Your task to perform on an android device: Clear the shopping cart on ebay. Add macbook pro 15 inch to the cart on ebay Image 0: 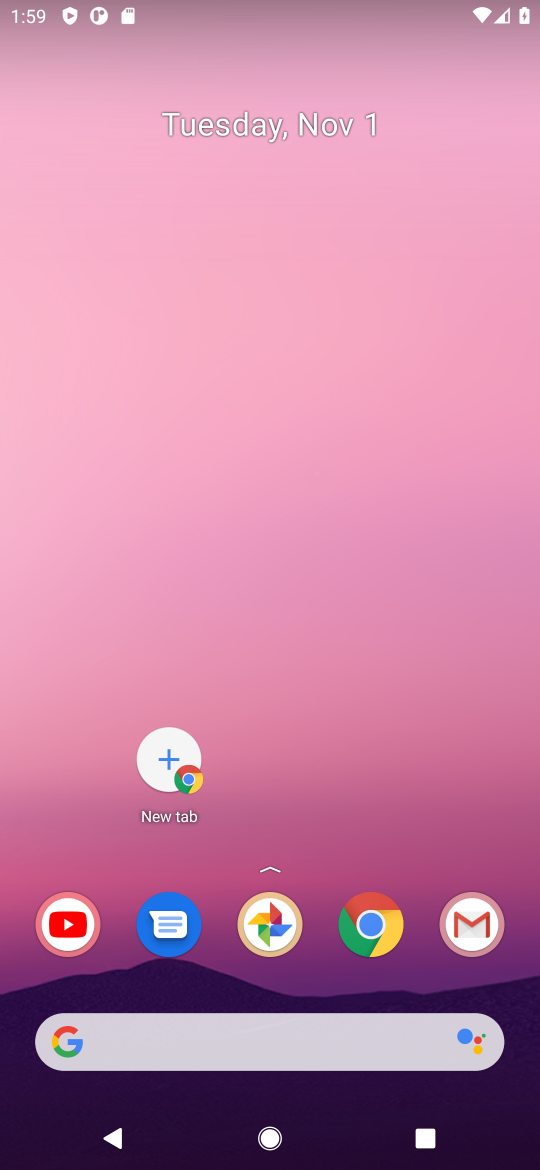
Step 0: click (365, 931)
Your task to perform on an android device: Clear the shopping cart on ebay. Add macbook pro 15 inch to the cart on ebay Image 1: 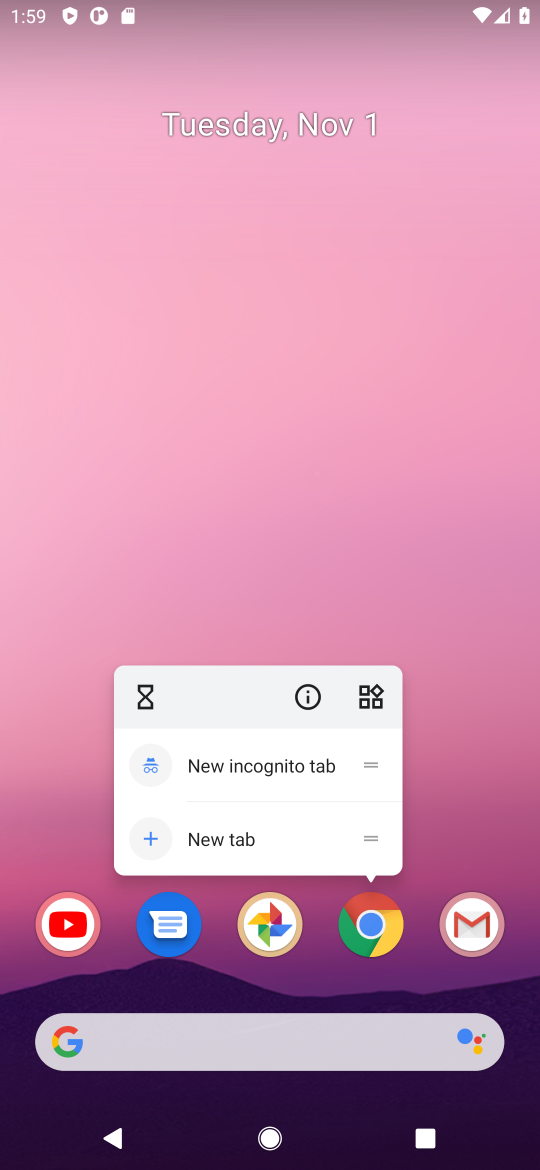
Step 1: click (391, 925)
Your task to perform on an android device: Clear the shopping cart on ebay. Add macbook pro 15 inch to the cart on ebay Image 2: 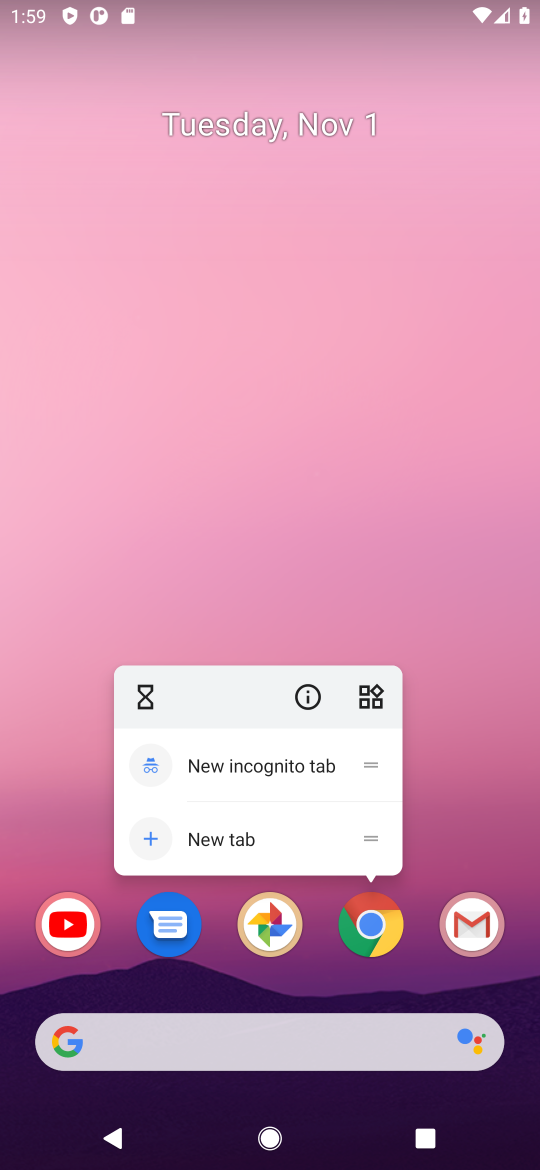
Step 2: click (391, 925)
Your task to perform on an android device: Clear the shopping cart on ebay. Add macbook pro 15 inch to the cart on ebay Image 3: 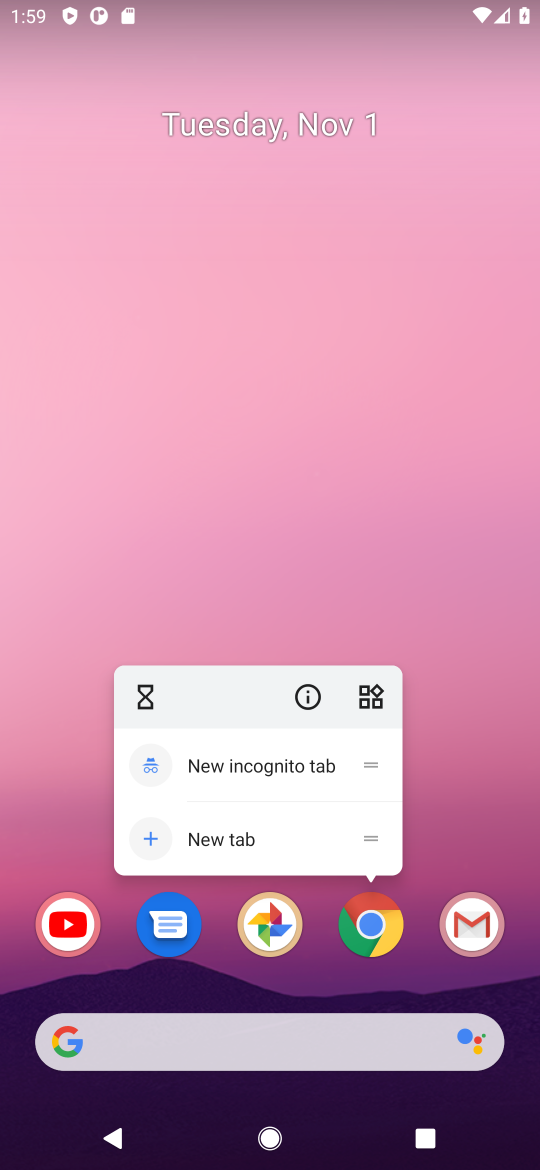
Step 3: click (388, 920)
Your task to perform on an android device: Clear the shopping cart on ebay. Add macbook pro 15 inch to the cart on ebay Image 4: 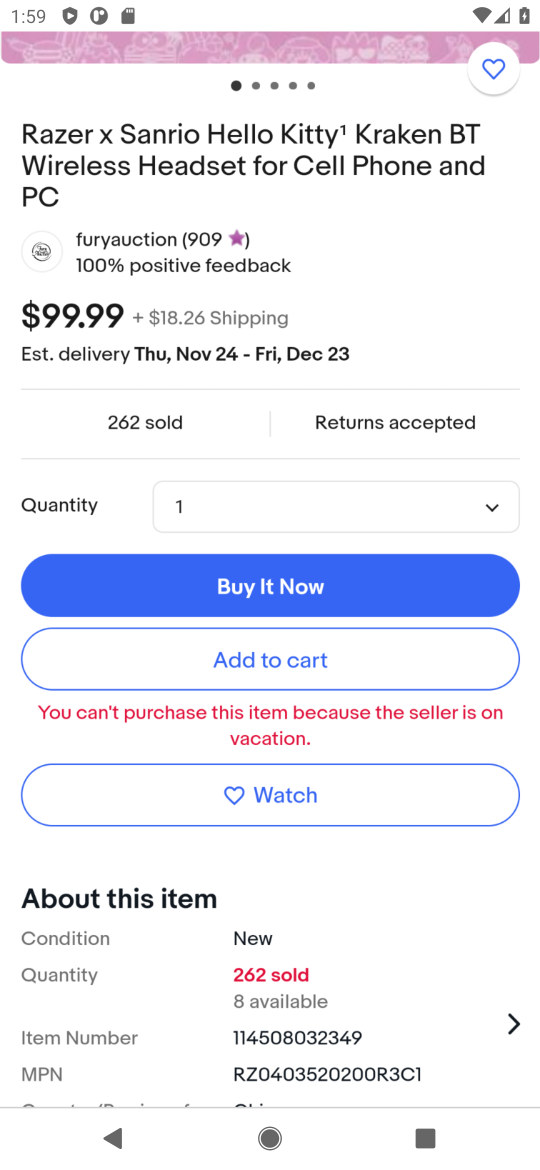
Step 4: click (387, 917)
Your task to perform on an android device: Clear the shopping cart on ebay. Add macbook pro 15 inch to the cart on ebay Image 5: 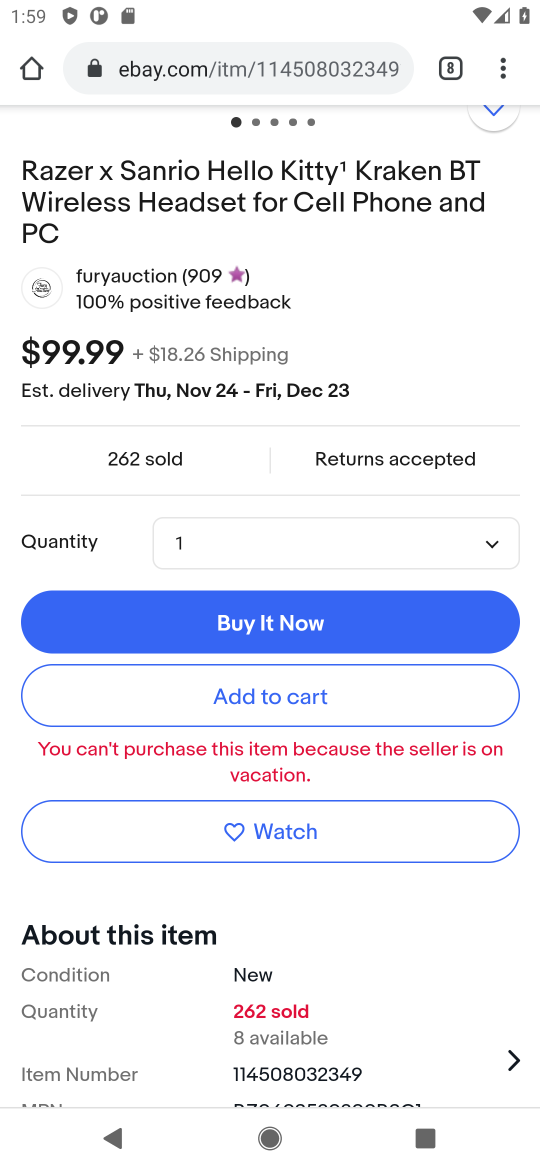
Step 5: click (190, 58)
Your task to perform on an android device: Clear the shopping cart on ebay. Add macbook pro 15 inch to the cart on ebay Image 6: 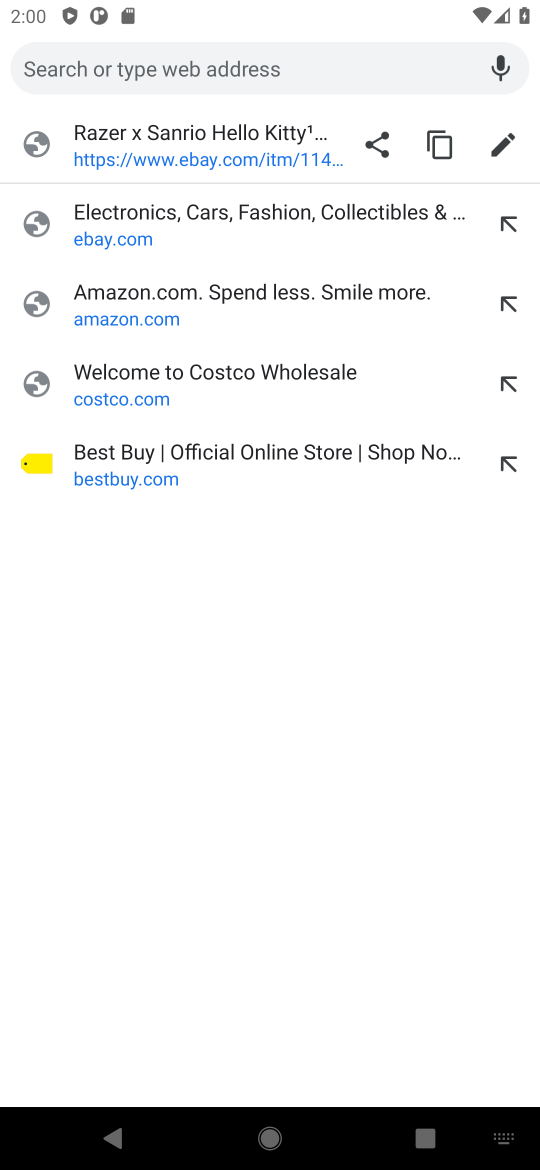
Step 6: click (158, 227)
Your task to perform on an android device: Clear the shopping cart on ebay. Add macbook pro 15 inch to the cart on ebay Image 7: 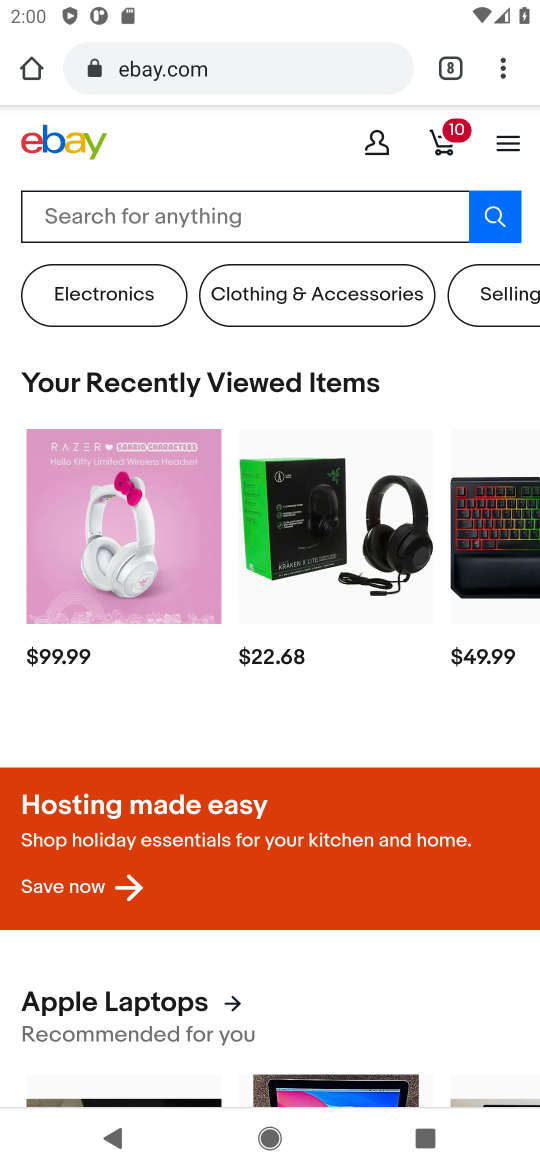
Step 7: click (158, 213)
Your task to perform on an android device: Clear the shopping cart on ebay. Add macbook pro 15 inch to the cart on ebay Image 8: 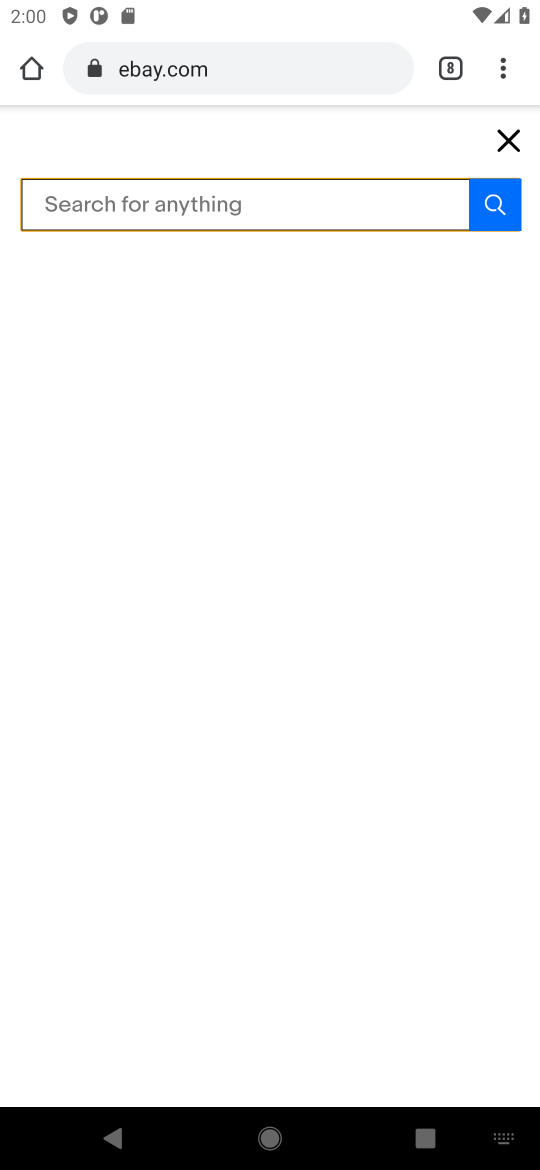
Step 8: type "mackbook pro 15"
Your task to perform on an android device: Clear the shopping cart on ebay. Add macbook pro 15 inch to the cart on ebay Image 9: 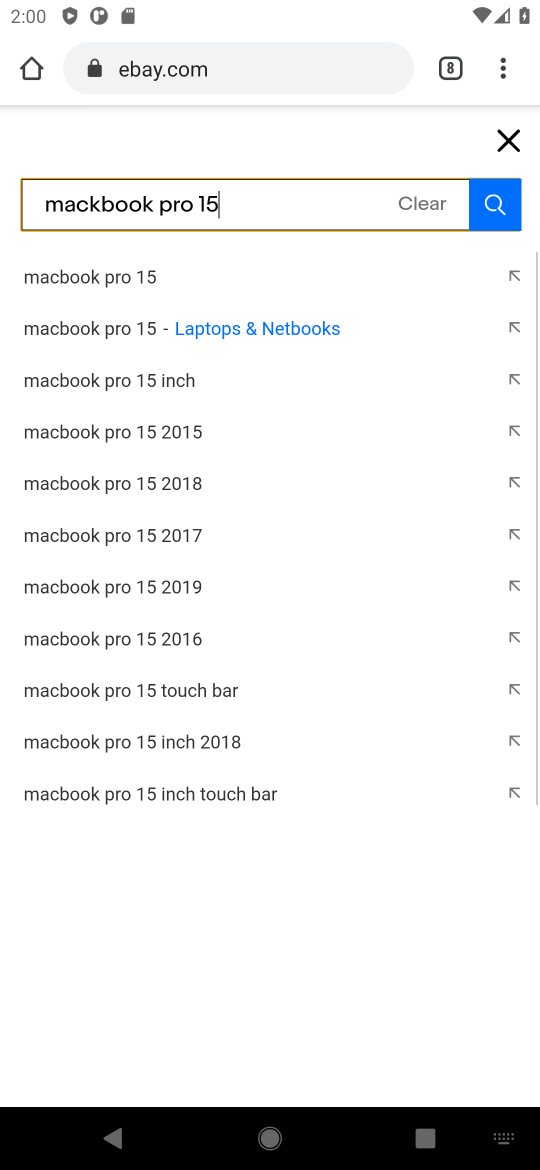
Step 9: type ""
Your task to perform on an android device: Clear the shopping cart on ebay. Add macbook pro 15 inch to the cart on ebay Image 10: 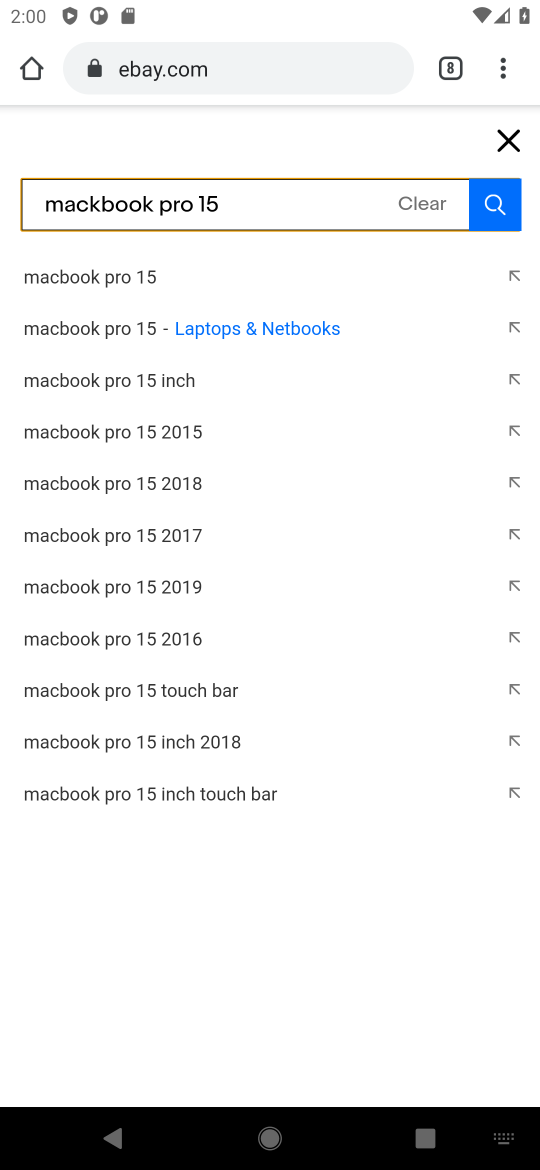
Step 10: click (113, 390)
Your task to perform on an android device: Clear the shopping cart on ebay. Add macbook pro 15 inch to the cart on ebay Image 11: 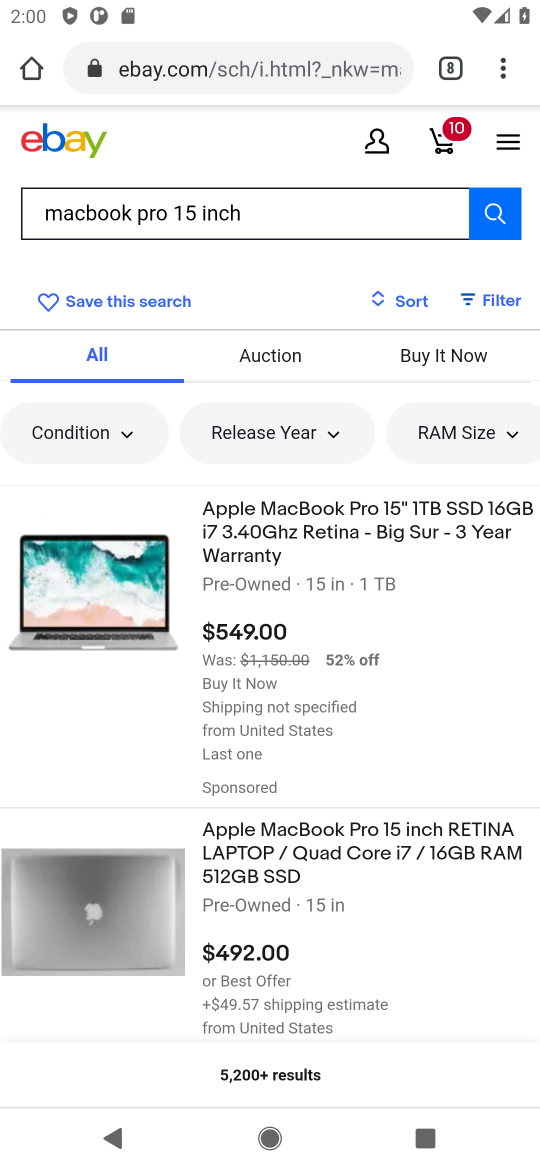
Step 11: click (157, 910)
Your task to perform on an android device: Clear the shopping cart on ebay. Add macbook pro 15 inch to the cart on ebay Image 12: 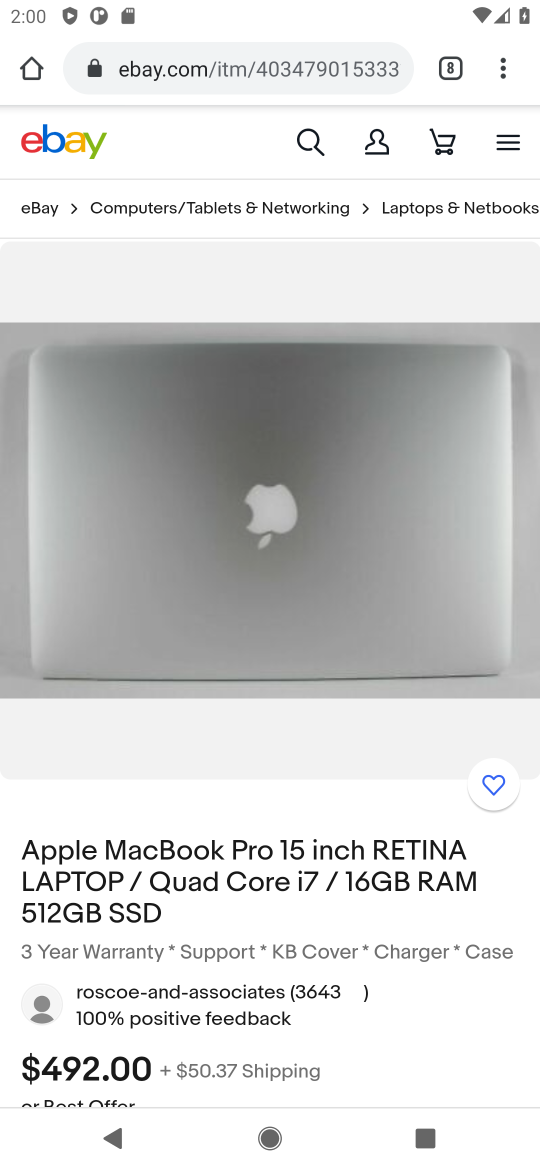
Step 12: drag from (286, 749) to (374, 202)
Your task to perform on an android device: Clear the shopping cart on ebay. Add macbook pro 15 inch to the cart on ebay Image 13: 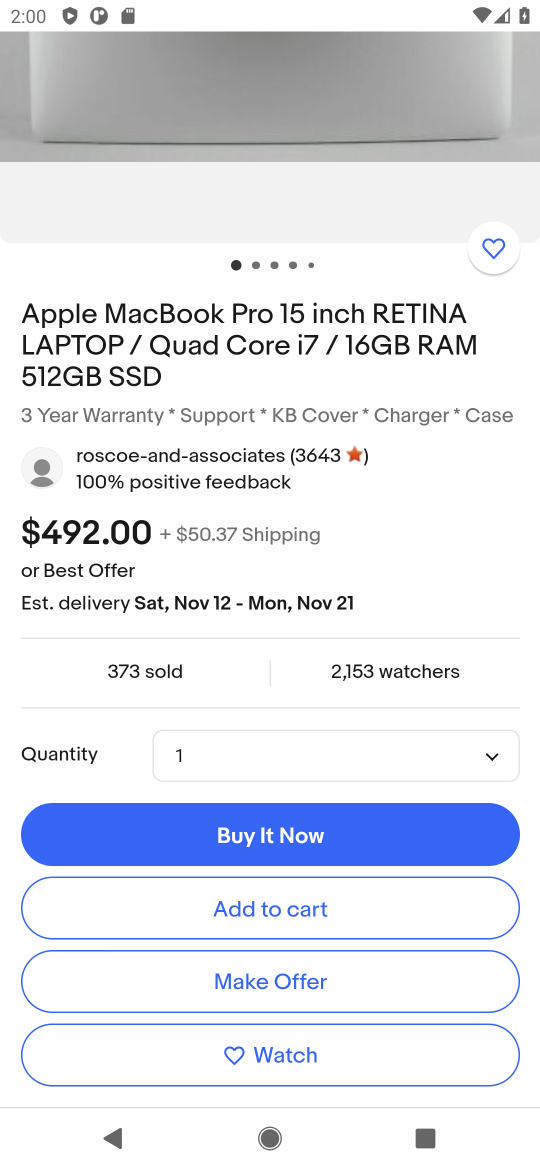
Step 13: click (242, 908)
Your task to perform on an android device: Clear the shopping cart on ebay. Add macbook pro 15 inch to the cart on ebay Image 14: 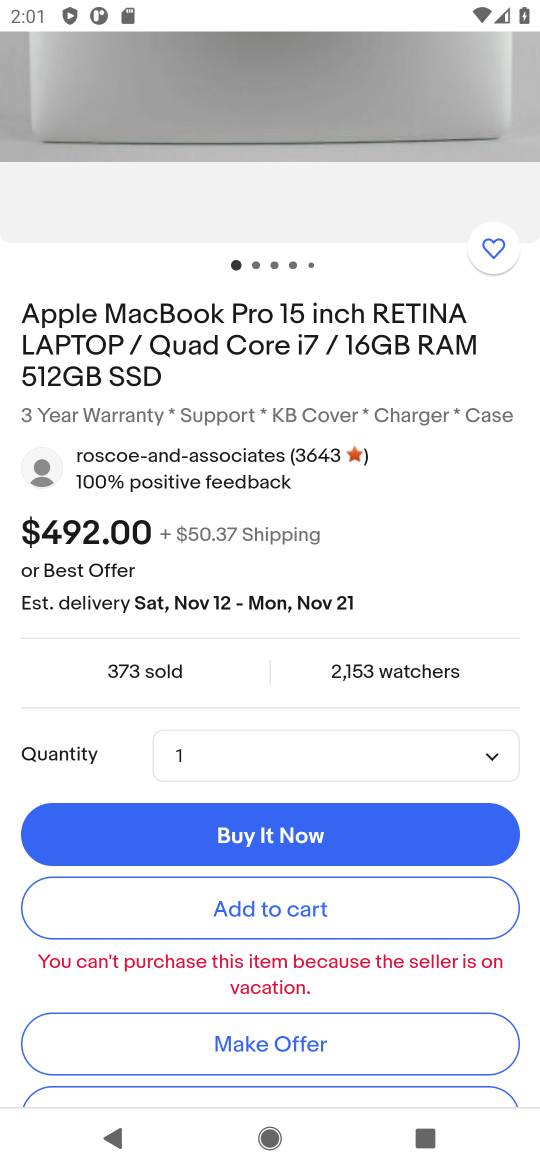
Step 14: task complete